Your task to perform on an android device: When is my next appointment? Image 0: 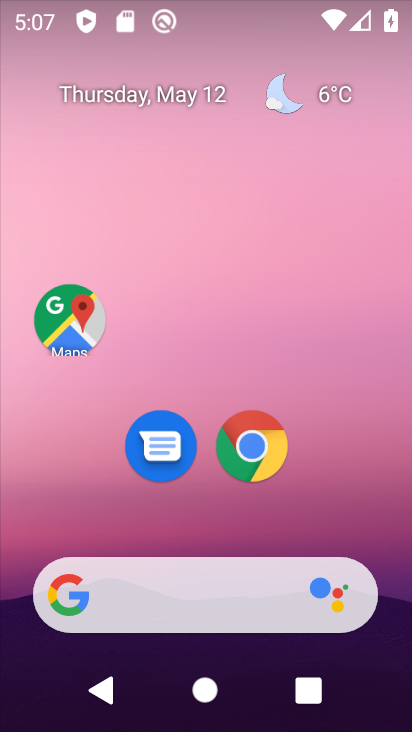
Step 0: drag from (336, 519) to (336, 101)
Your task to perform on an android device: When is my next appointment? Image 1: 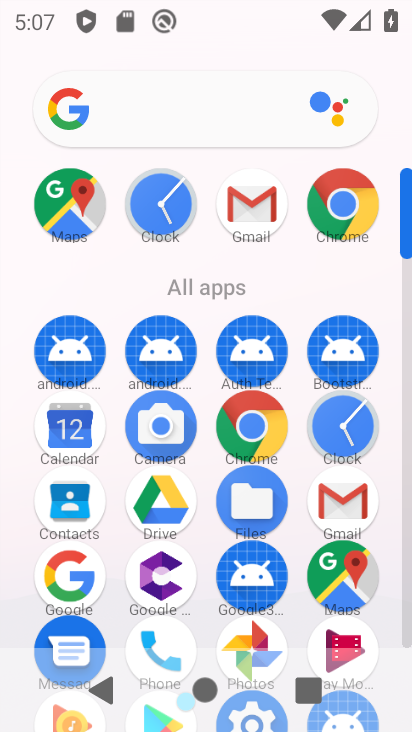
Step 1: click (76, 425)
Your task to perform on an android device: When is my next appointment? Image 2: 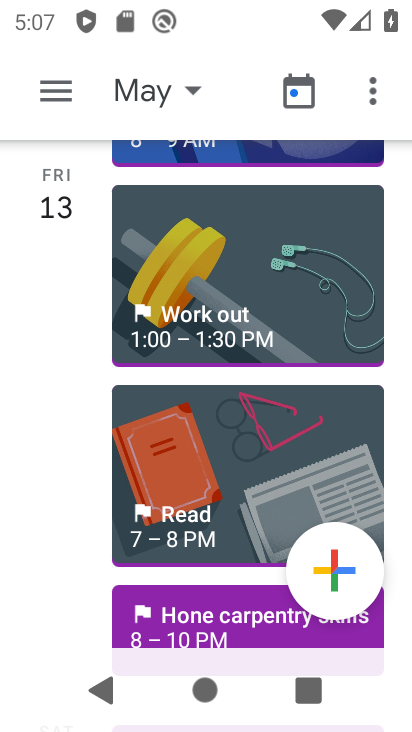
Step 2: click (47, 83)
Your task to perform on an android device: When is my next appointment? Image 3: 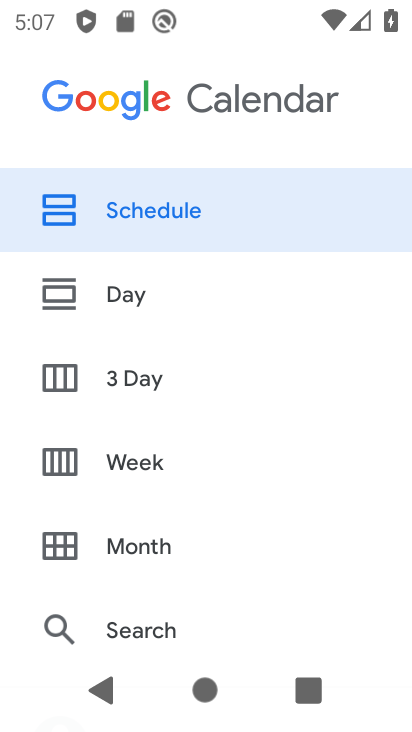
Step 3: click (161, 218)
Your task to perform on an android device: When is my next appointment? Image 4: 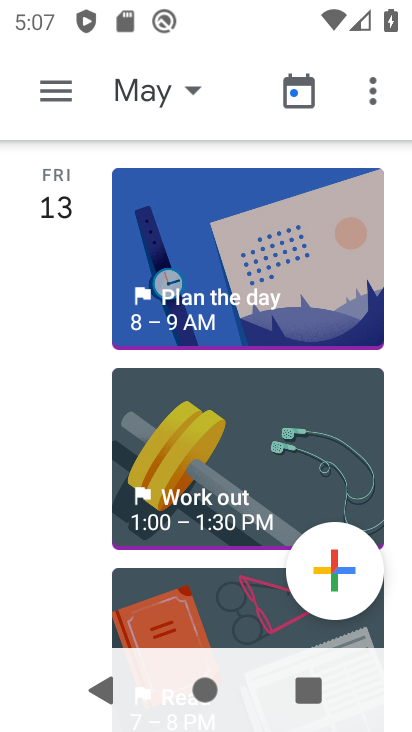
Step 4: task complete